Your task to perform on an android device: What's on my calendar tomorrow? Image 0: 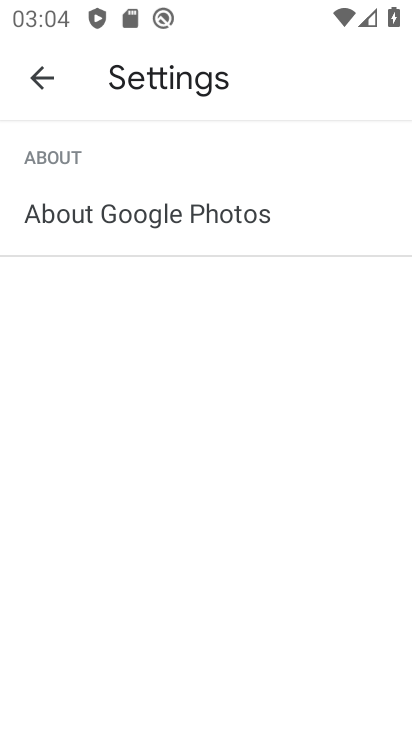
Step 0: press back button
Your task to perform on an android device: What's on my calendar tomorrow? Image 1: 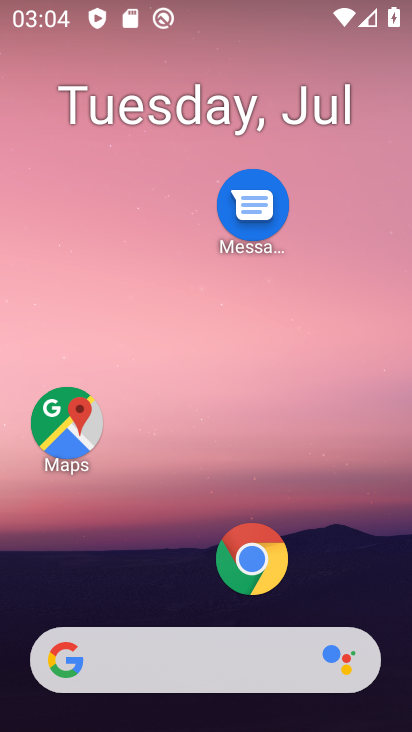
Step 1: drag from (182, 573) to (193, 152)
Your task to perform on an android device: What's on my calendar tomorrow? Image 2: 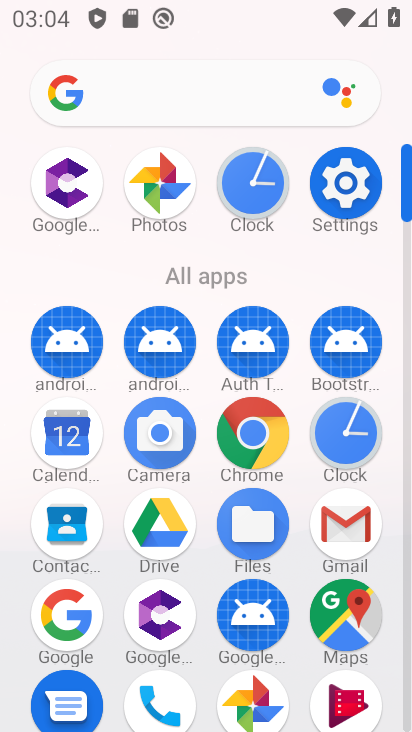
Step 2: click (61, 441)
Your task to perform on an android device: What's on my calendar tomorrow? Image 3: 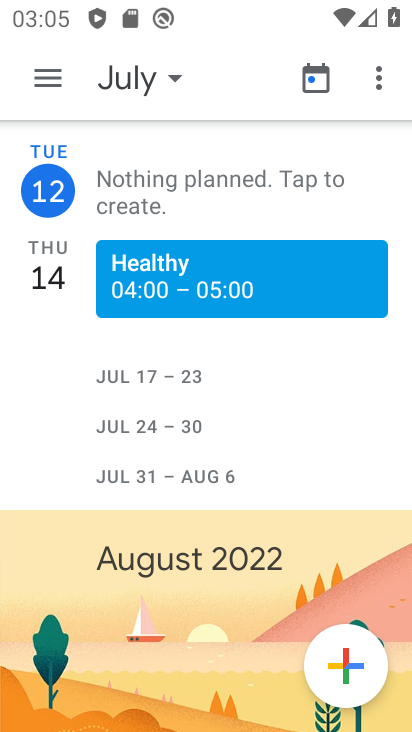
Step 3: task complete